Your task to perform on an android device: search for outdoor chairs on article.com Image 0: 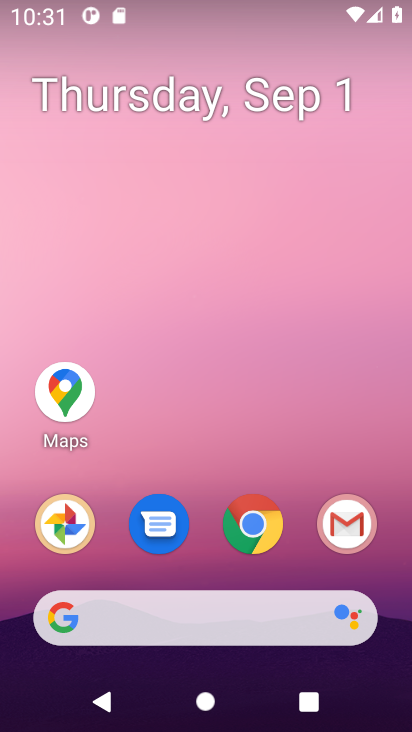
Step 0: press home button
Your task to perform on an android device: search for outdoor chairs on article.com Image 1: 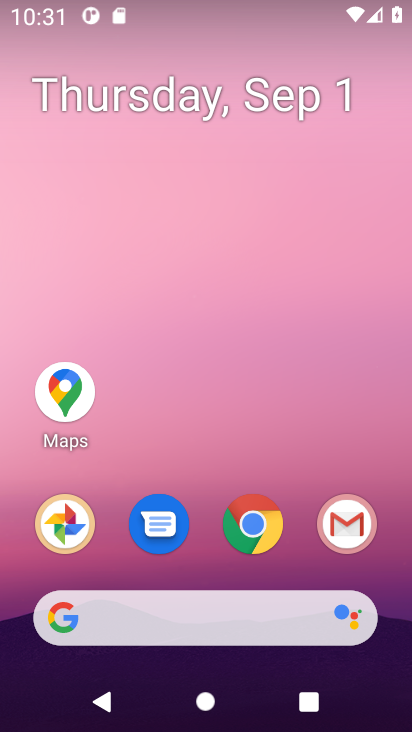
Step 1: drag from (377, 471) to (358, 85)
Your task to perform on an android device: search for outdoor chairs on article.com Image 2: 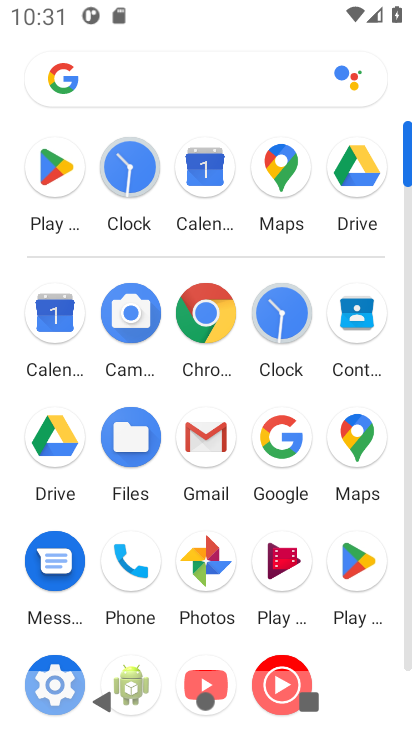
Step 2: click (211, 315)
Your task to perform on an android device: search for outdoor chairs on article.com Image 3: 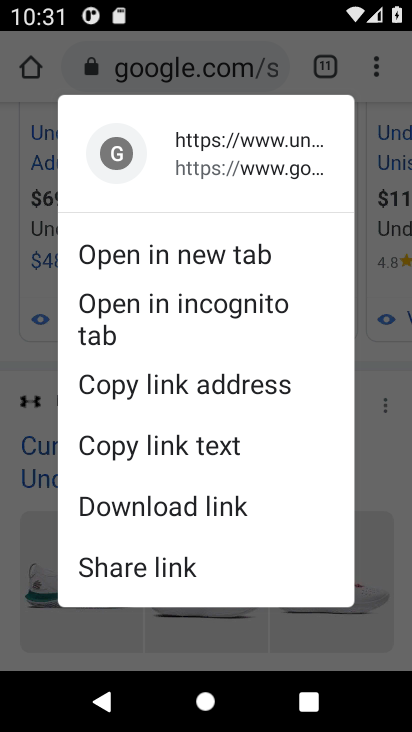
Step 3: press back button
Your task to perform on an android device: search for outdoor chairs on article.com Image 4: 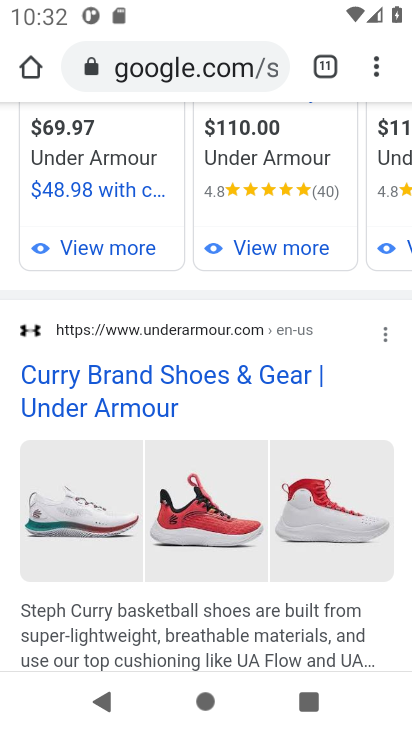
Step 4: click (218, 56)
Your task to perform on an android device: search for outdoor chairs on article.com Image 5: 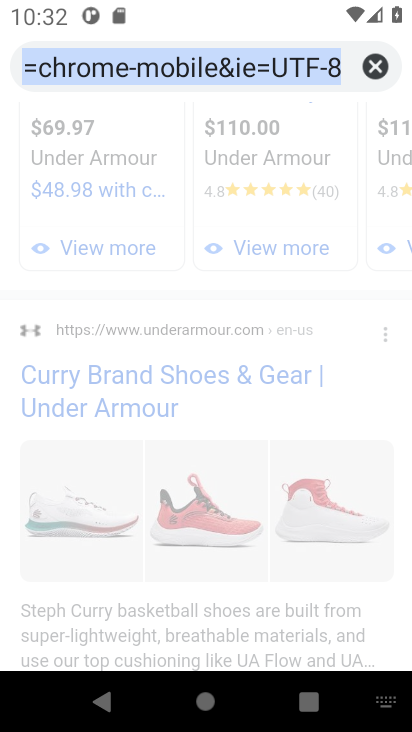
Step 5: type "article.com"
Your task to perform on an android device: search for outdoor chairs on article.com Image 6: 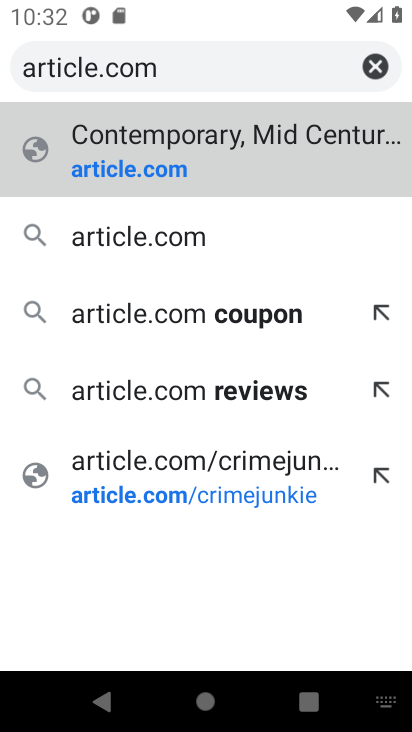
Step 6: click (127, 233)
Your task to perform on an android device: search for outdoor chairs on article.com Image 7: 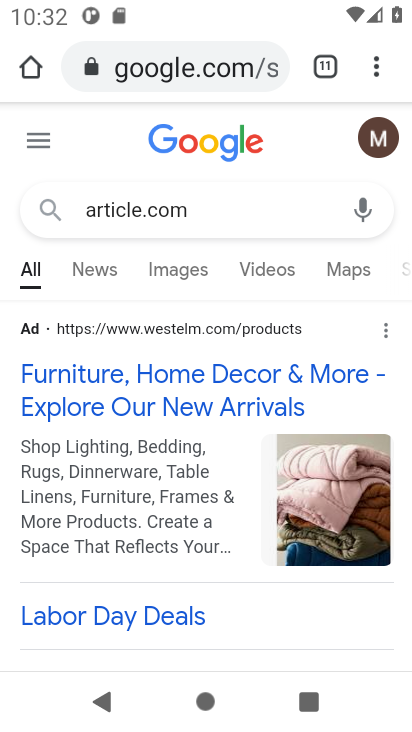
Step 7: drag from (228, 471) to (238, 275)
Your task to perform on an android device: search for outdoor chairs on article.com Image 8: 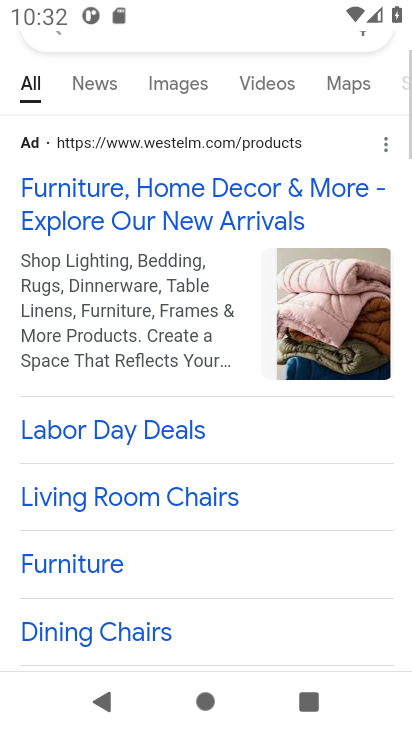
Step 8: drag from (245, 480) to (239, 262)
Your task to perform on an android device: search for outdoor chairs on article.com Image 9: 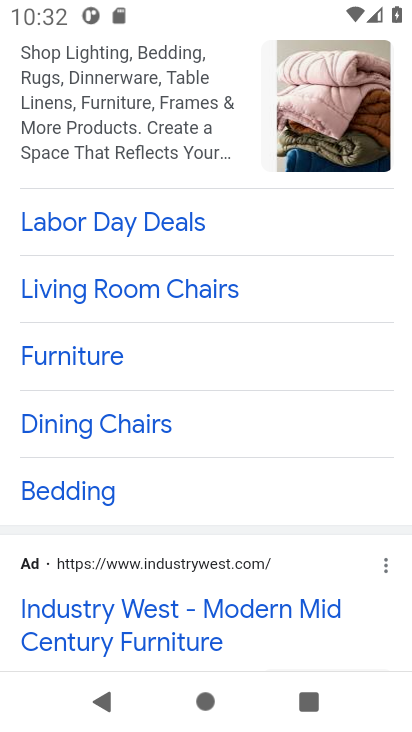
Step 9: click (280, 548)
Your task to perform on an android device: search for outdoor chairs on article.com Image 10: 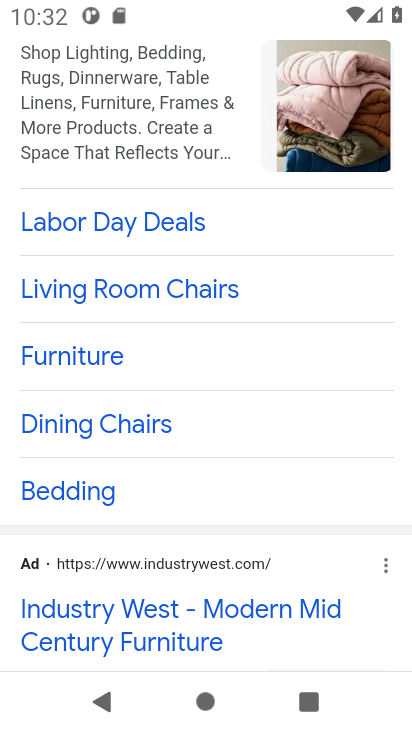
Step 10: drag from (224, 137) to (233, 459)
Your task to perform on an android device: search for outdoor chairs on article.com Image 11: 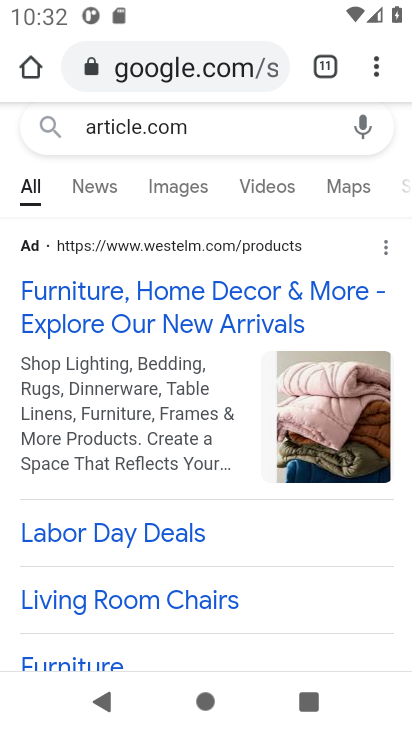
Step 11: click (127, 312)
Your task to perform on an android device: search for outdoor chairs on article.com Image 12: 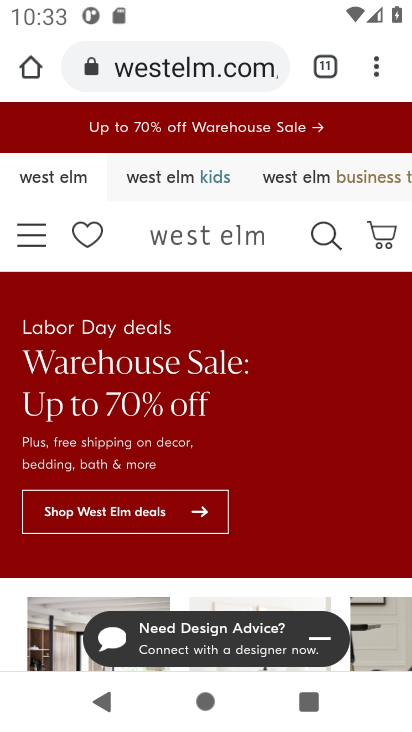
Step 12: click (321, 229)
Your task to perform on an android device: search for outdoor chairs on article.com Image 13: 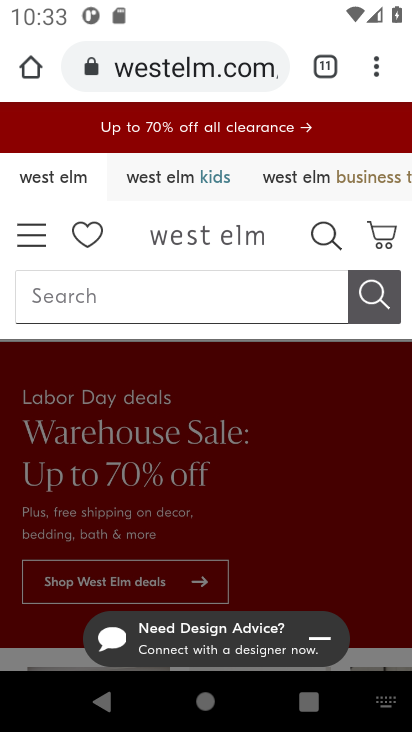
Step 13: click (218, 297)
Your task to perform on an android device: search for outdoor chairs on article.com Image 14: 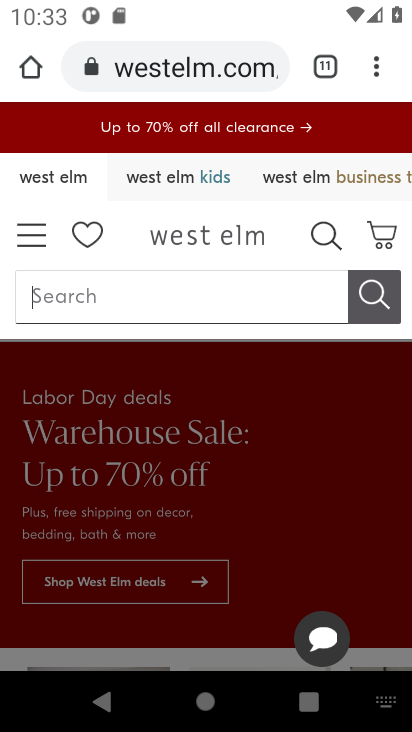
Step 14: press enter
Your task to perform on an android device: search for outdoor chairs on article.com Image 15: 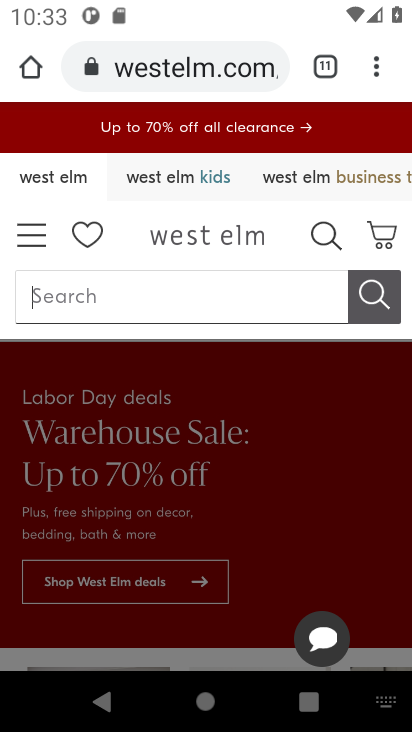
Step 15: type "outdoor chairs"
Your task to perform on an android device: search for outdoor chairs on article.com Image 16: 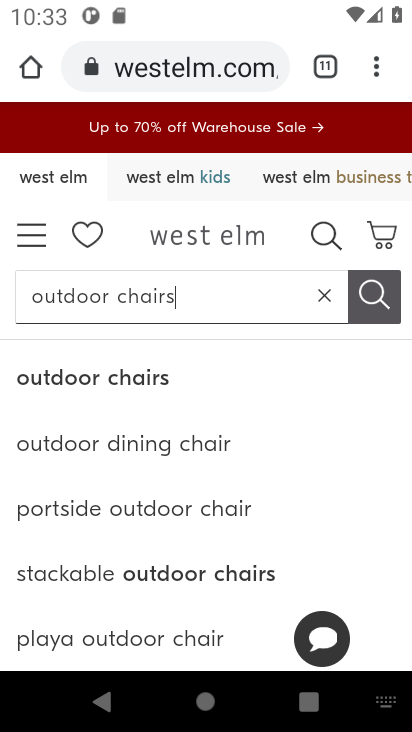
Step 16: click (129, 379)
Your task to perform on an android device: search for outdoor chairs on article.com Image 17: 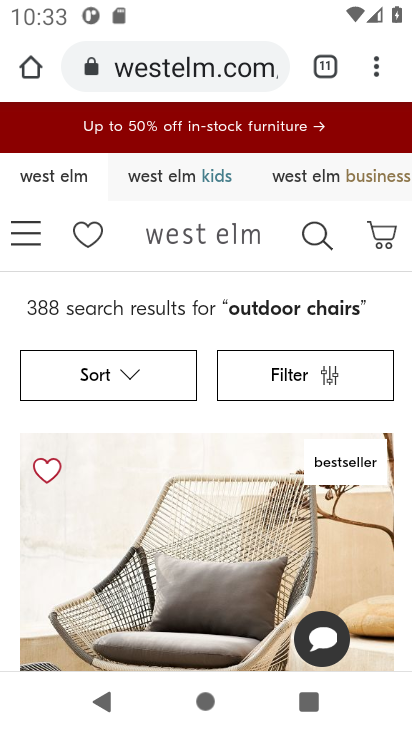
Step 17: task complete